Your task to perform on an android device: turn on wifi Image 0: 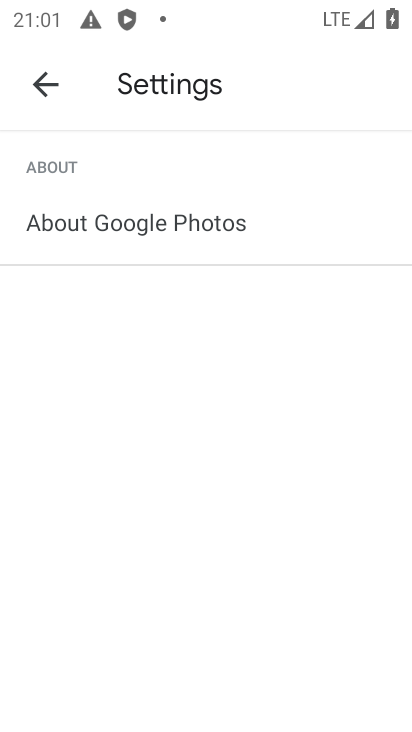
Step 0: press home button
Your task to perform on an android device: turn on wifi Image 1: 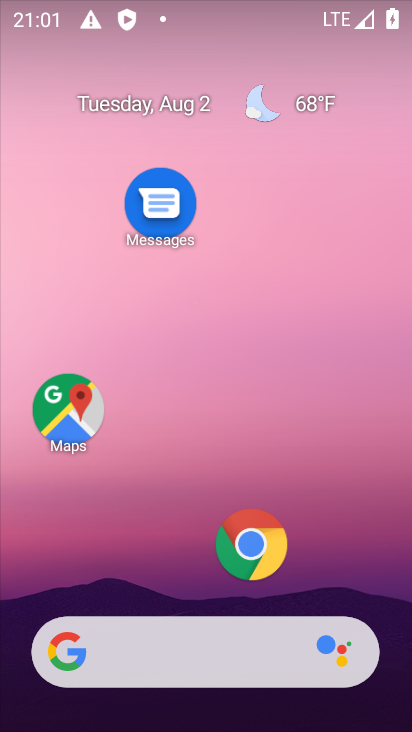
Step 1: drag from (178, 578) to (165, 169)
Your task to perform on an android device: turn on wifi Image 2: 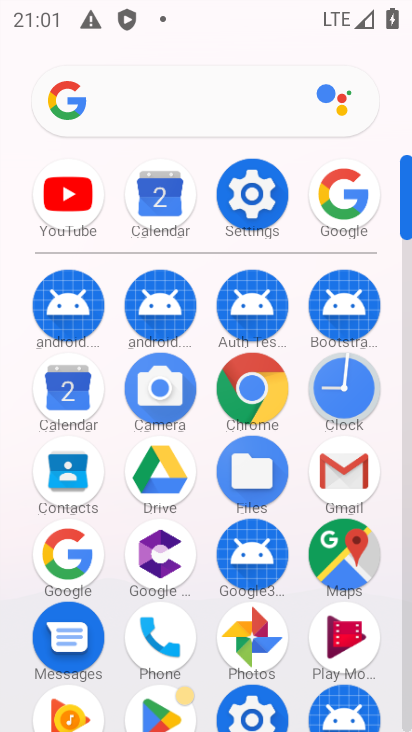
Step 2: click (239, 206)
Your task to perform on an android device: turn on wifi Image 3: 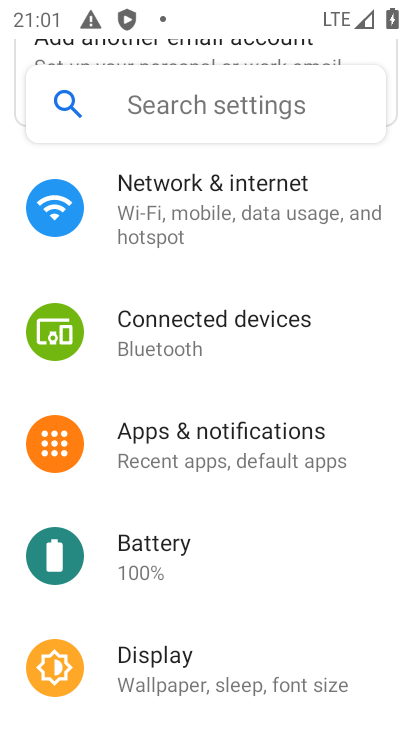
Step 3: drag from (238, 203) to (291, 632)
Your task to perform on an android device: turn on wifi Image 4: 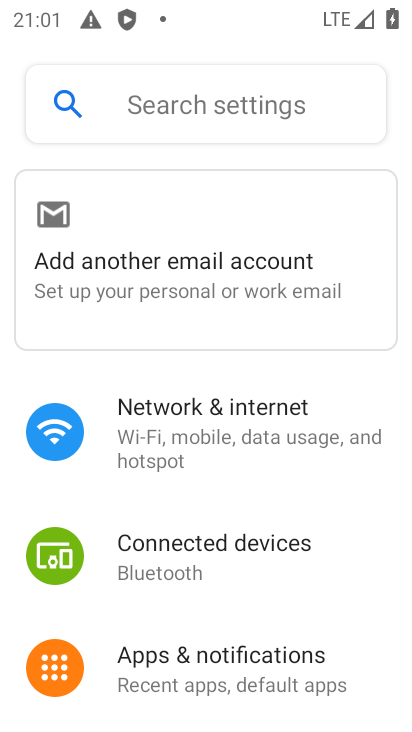
Step 4: click (246, 429)
Your task to perform on an android device: turn on wifi Image 5: 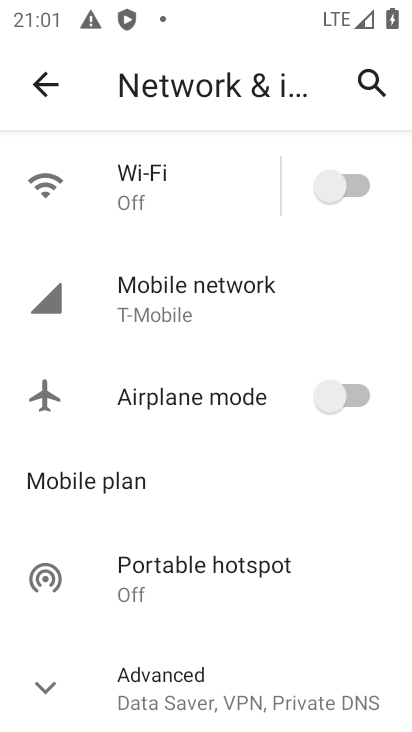
Step 5: click (354, 192)
Your task to perform on an android device: turn on wifi Image 6: 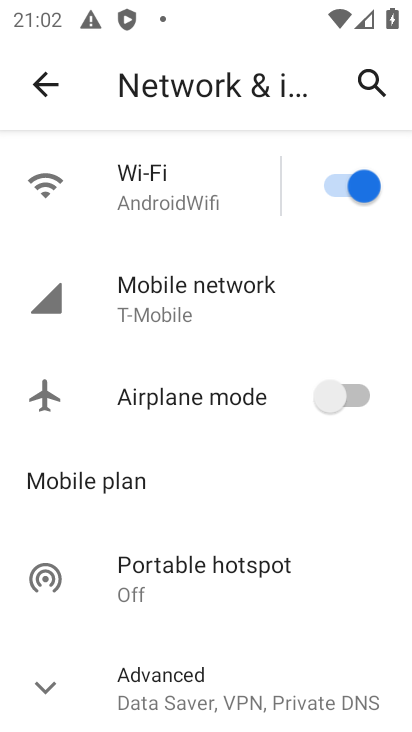
Step 6: task complete